Your task to perform on an android device: clear history in the chrome app Image 0: 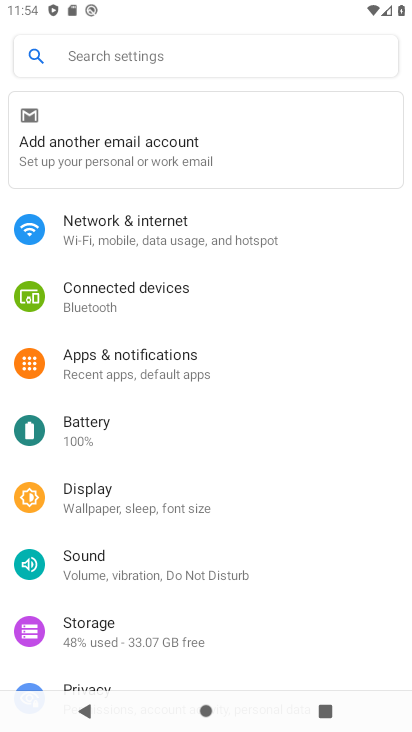
Step 0: press home button
Your task to perform on an android device: clear history in the chrome app Image 1: 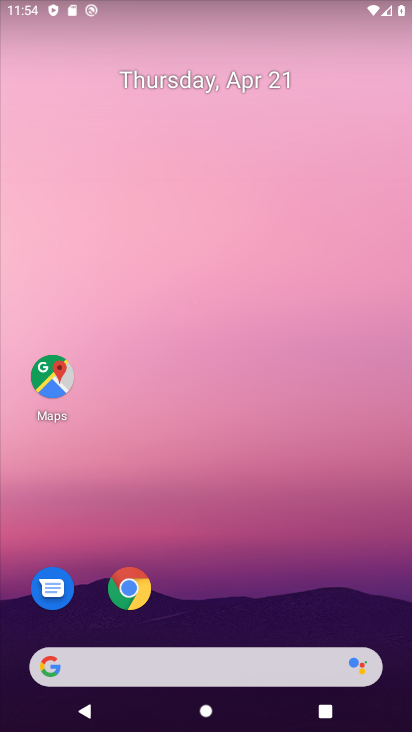
Step 1: drag from (294, 572) to (315, 68)
Your task to perform on an android device: clear history in the chrome app Image 2: 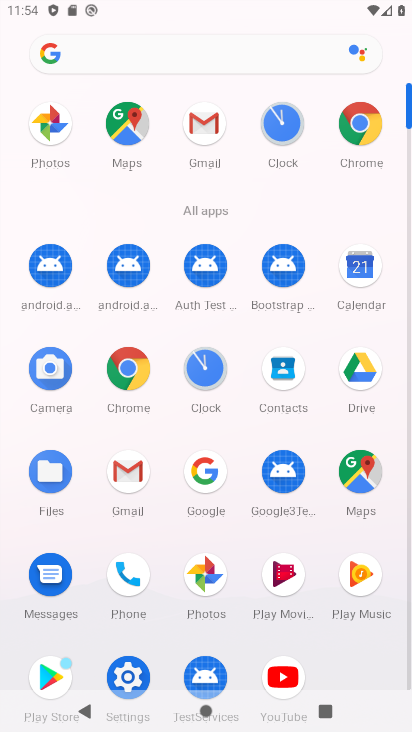
Step 2: click (137, 369)
Your task to perform on an android device: clear history in the chrome app Image 3: 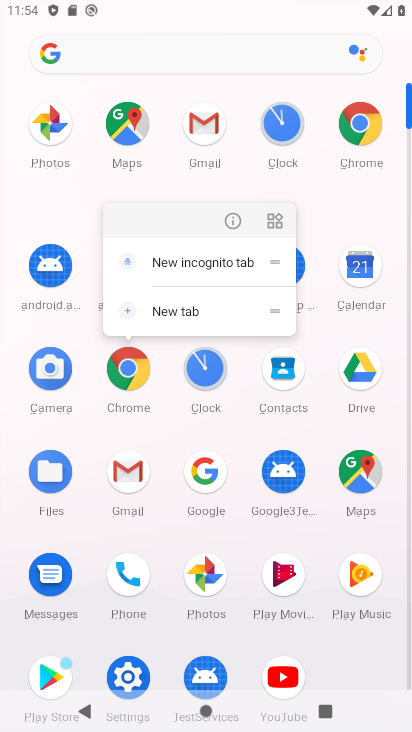
Step 3: click (137, 373)
Your task to perform on an android device: clear history in the chrome app Image 4: 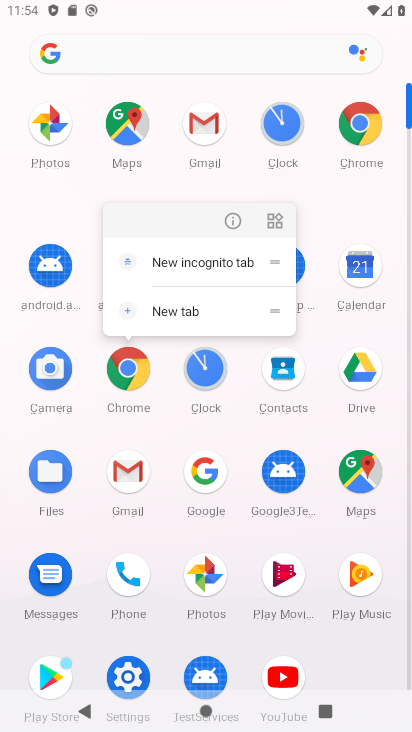
Step 4: click (126, 378)
Your task to perform on an android device: clear history in the chrome app Image 5: 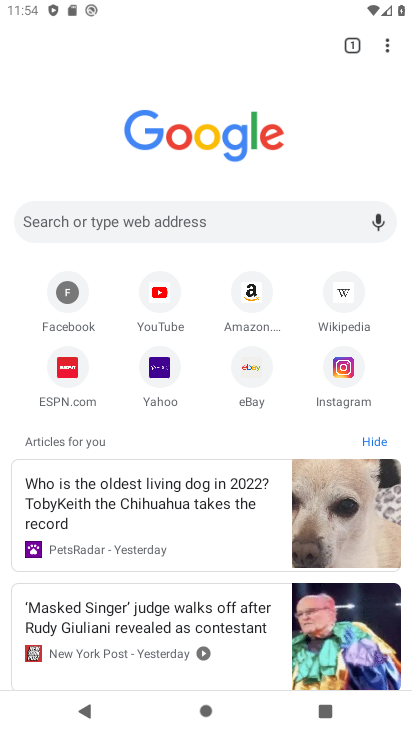
Step 5: task complete